Your task to perform on an android device: see sites visited before in the chrome app Image 0: 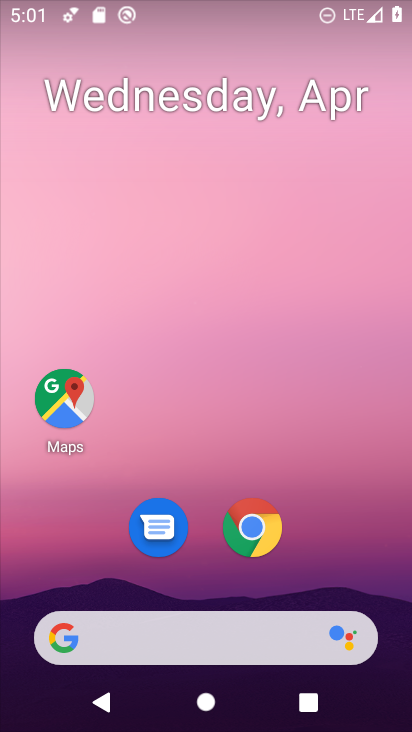
Step 0: click (249, 534)
Your task to perform on an android device: see sites visited before in the chrome app Image 1: 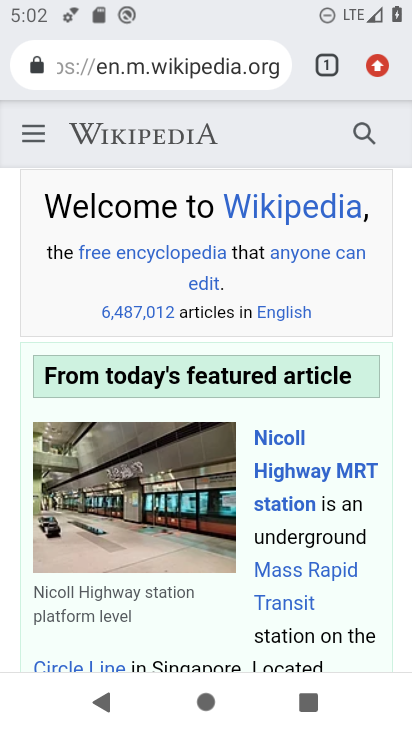
Step 1: click (370, 72)
Your task to perform on an android device: see sites visited before in the chrome app Image 2: 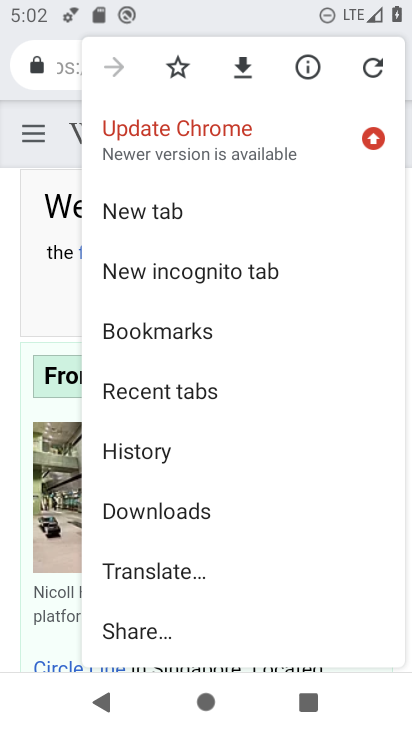
Step 2: click (169, 444)
Your task to perform on an android device: see sites visited before in the chrome app Image 3: 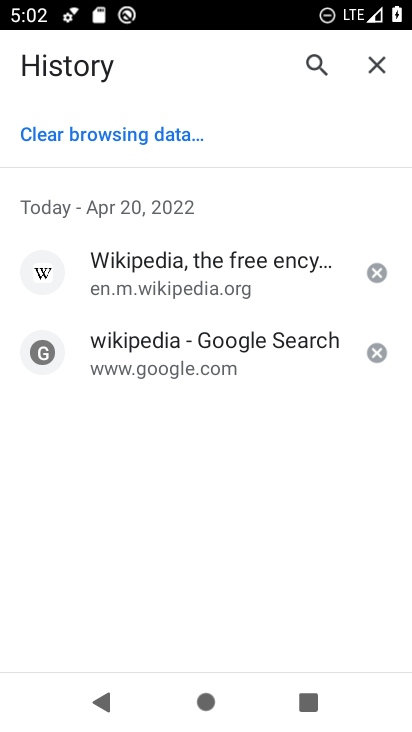
Step 3: task complete